Your task to perform on an android device: turn off notifications settings in the gmail app Image 0: 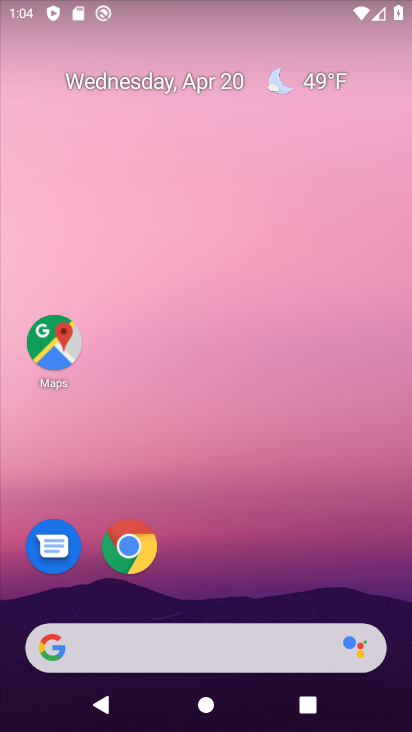
Step 0: drag from (209, 601) to (335, 34)
Your task to perform on an android device: turn off notifications settings in the gmail app Image 1: 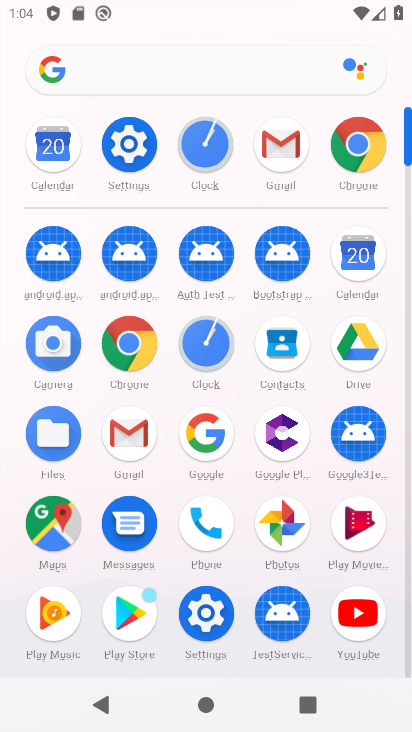
Step 1: click (134, 162)
Your task to perform on an android device: turn off notifications settings in the gmail app Image 2: 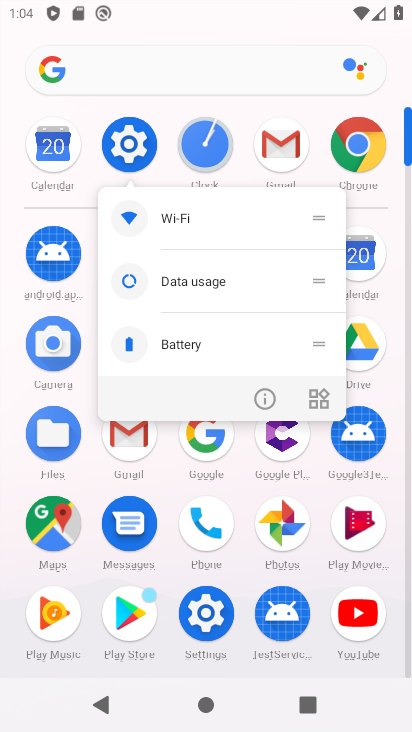
Step 2: click (134, 146)
Your task to perform on an android device: turn off notifications settings in the gmail app Image 3: 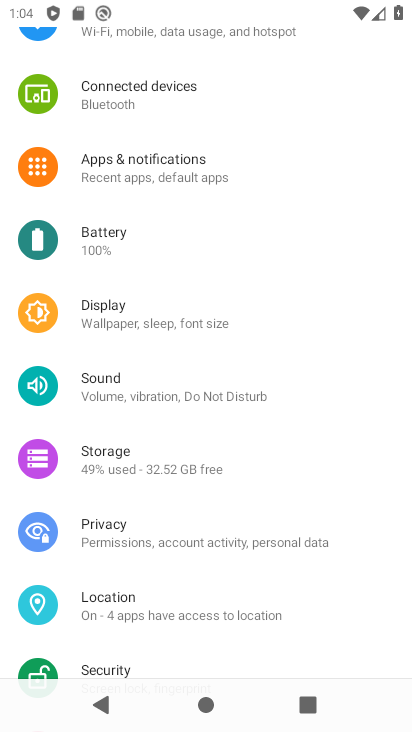
Step 3: click (144, 162)
Your task to perform on an android device: turn off notifications settings in the gmail app Image 4: 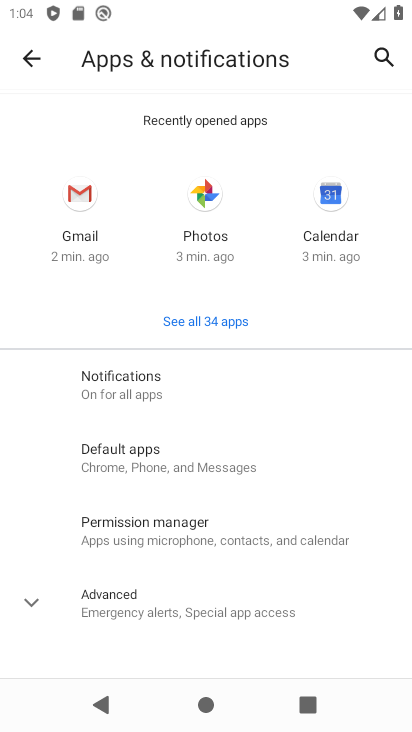
Step 4: click (79, 209)
Your task to perform on an android device: turn off notifications settings in the gmail app Image 5: 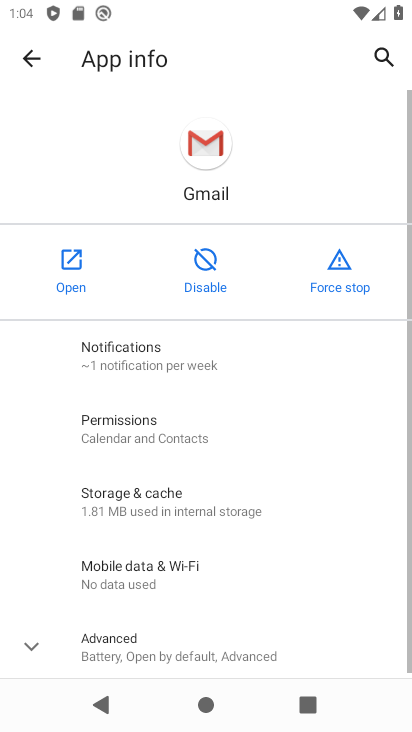
Step 5: click (142, 352)
Your task to perform on an android device: turn off notifications settings in the gmail app Image 6: 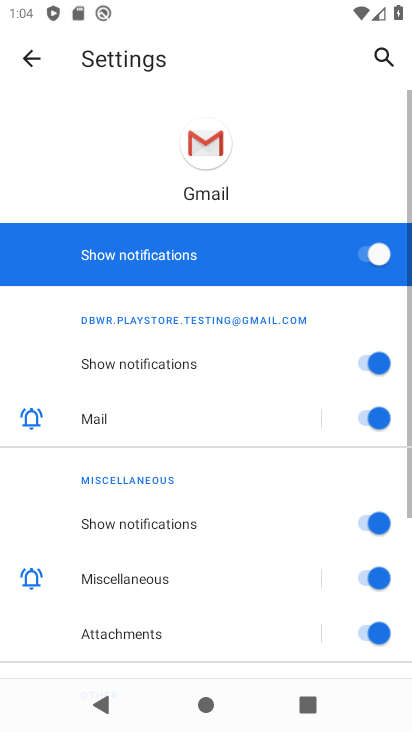
Step 6: click (364, 248)
Your task to perform on an android device: turn off notifications settings in the gmail app Image 7: 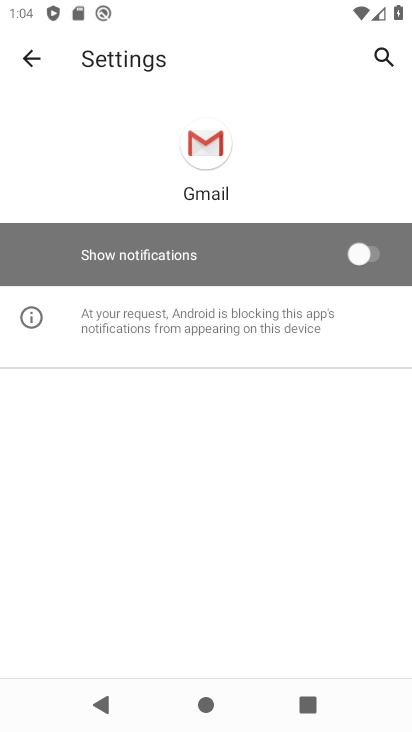
Step 7: task complete